Your task to perform on an android device: open chrome and create a bookmark for the current page Image 0: 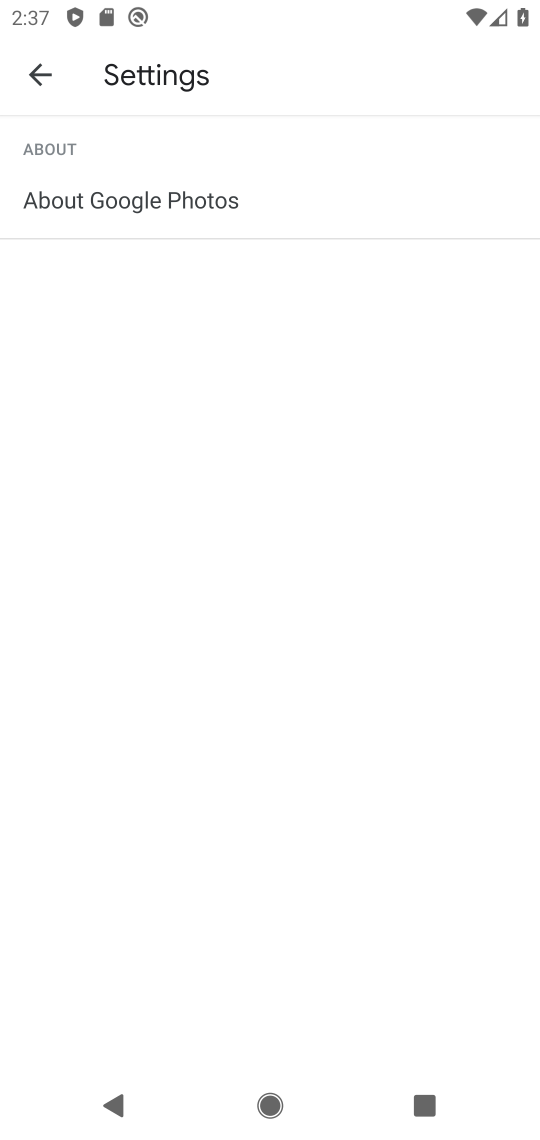
Step 0: press home button
Your task to perform on an android device: open chrome and create a bookmark for the current page Image 1: 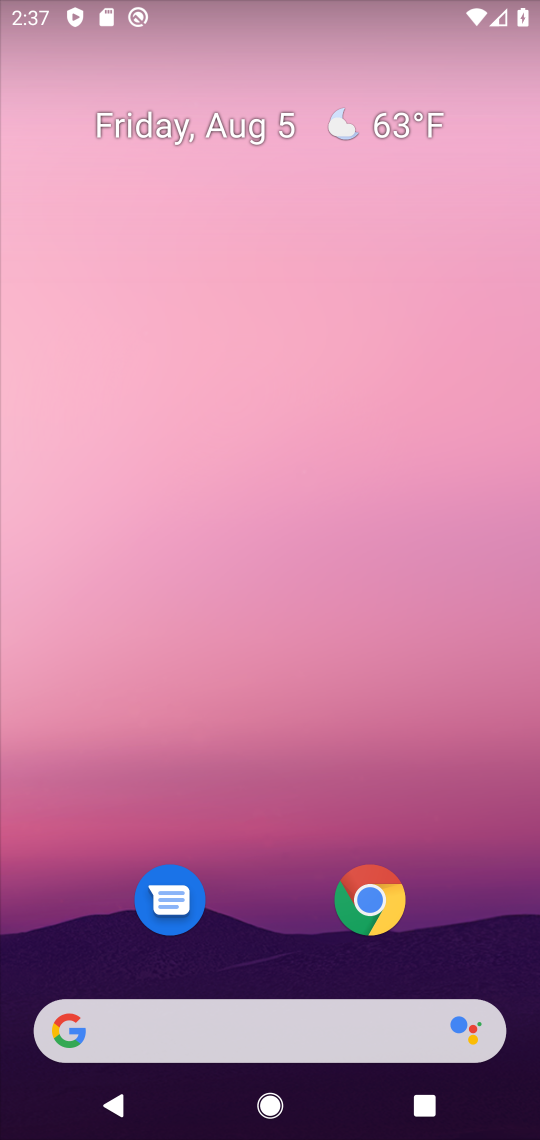
Step 1: drag from (236, 994) to (258, 433)
Your task to perform on an android device: open chrome and create a bookmark for the current page Image 2: 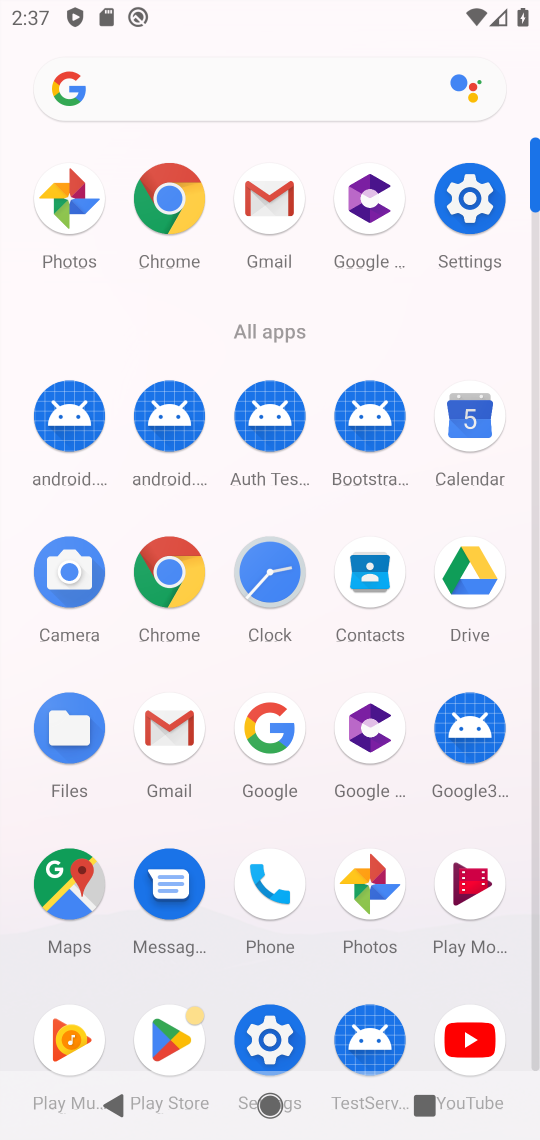
Step 2: click (185, 215)
Your task to perform on an android device: open chrome and create a bookmark for the current page Image 3: 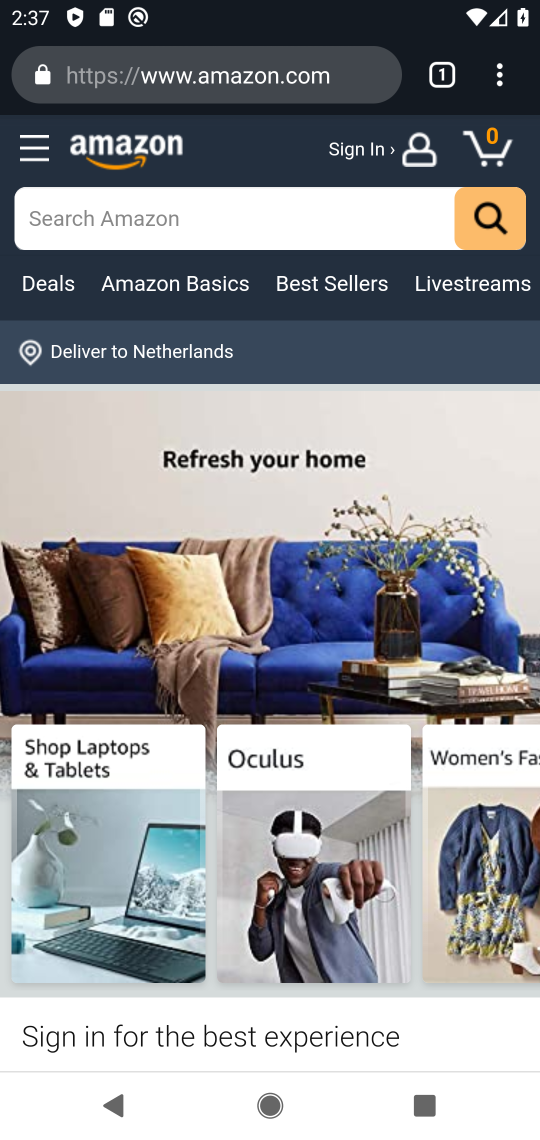
Step 3: click (498, 88)
Your task to perform on an android device: open chrome and create a bookmark for the current page Image 4: 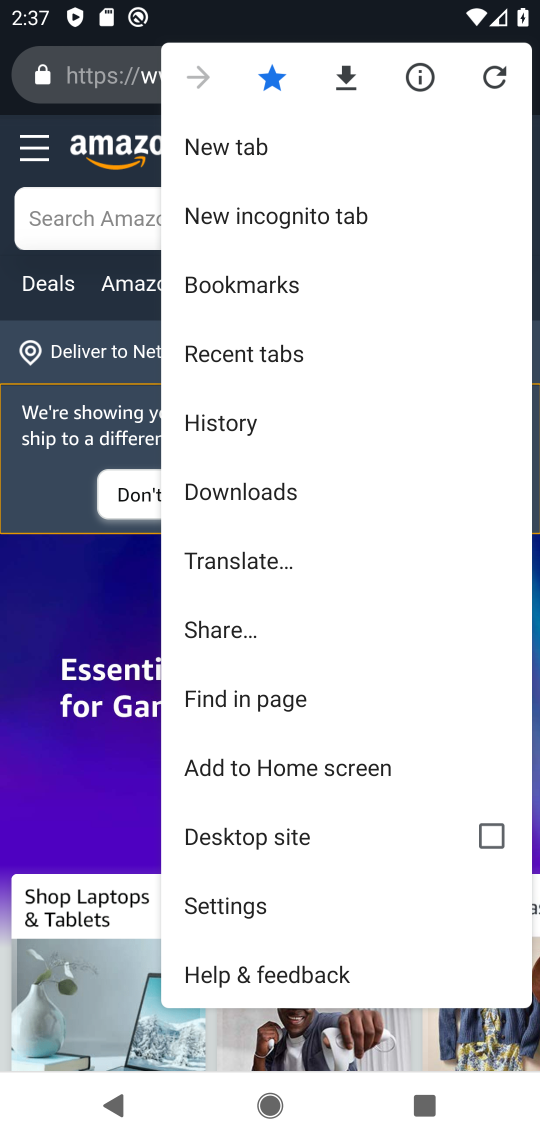
Step 4: task complete